Your task to perform on an android device: turn on improve location accuracy Image 0: 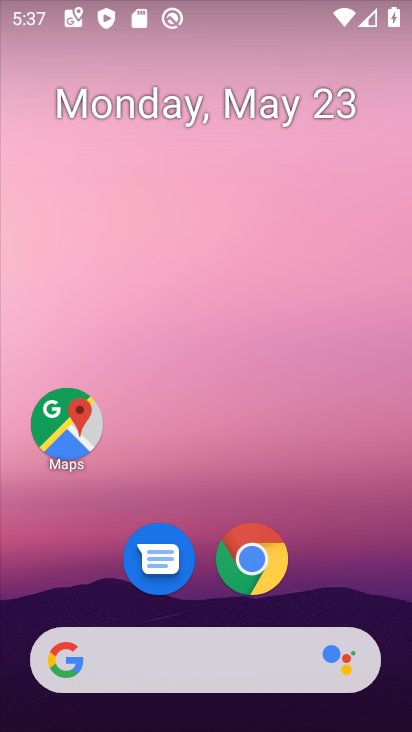
Step 0: drag from (313, 636) to (411, 177)
Your task to perform on an android device: turn on improve location accuracy Image 1: 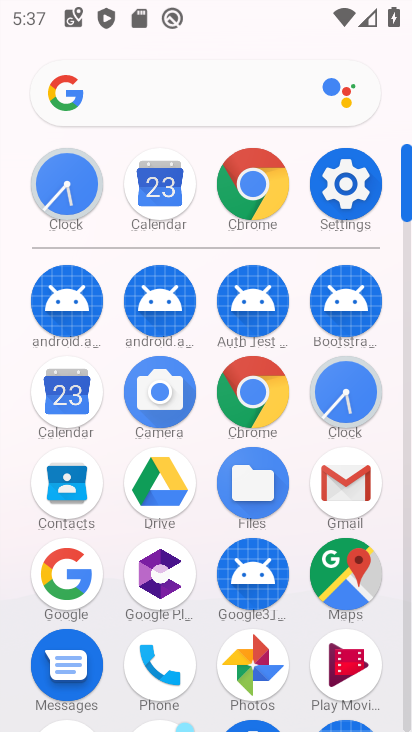
Step 1: click (376, 181)
Your task to perform on an android device: turn on improve location accuracy Image 2: 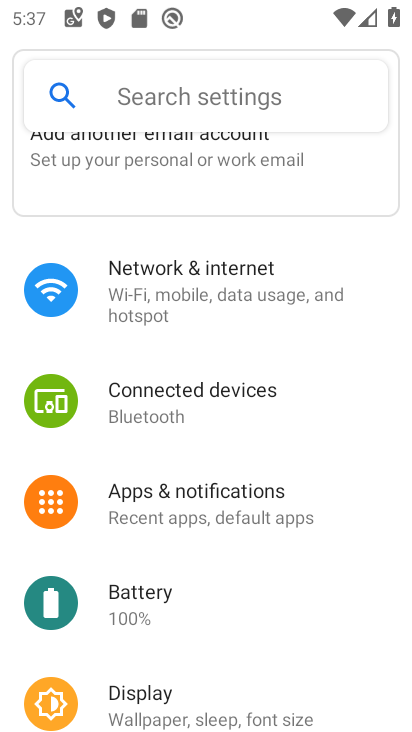
Step 2: drag from (249, 690) to (242, 115)
Your task to perform on an android device: turn on improve location accuracy Image 3: 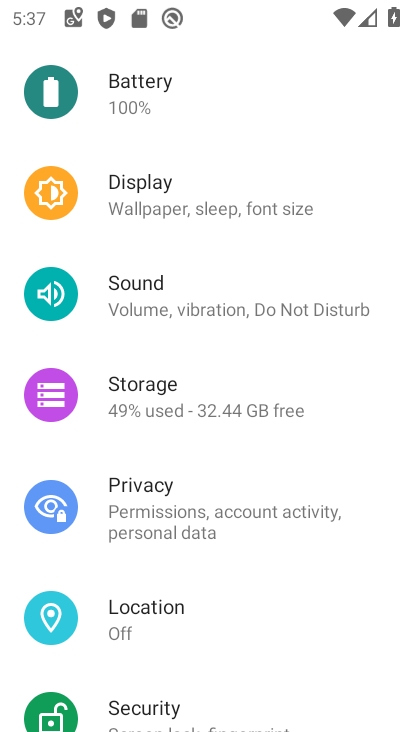
Step 3: click (191, 615)
Your task to perform on an android device: turn on improve location accuracy Image 4: 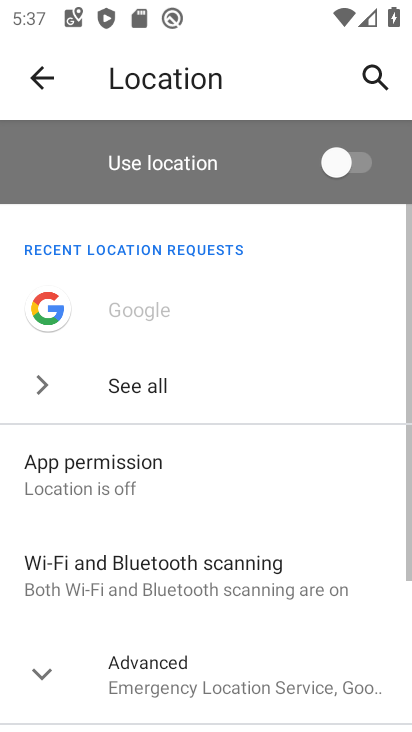
Step 4: drag from (248, 649) to (280, 164)
Your task to perform on an android device: turn on improve location accuracy Image 5: 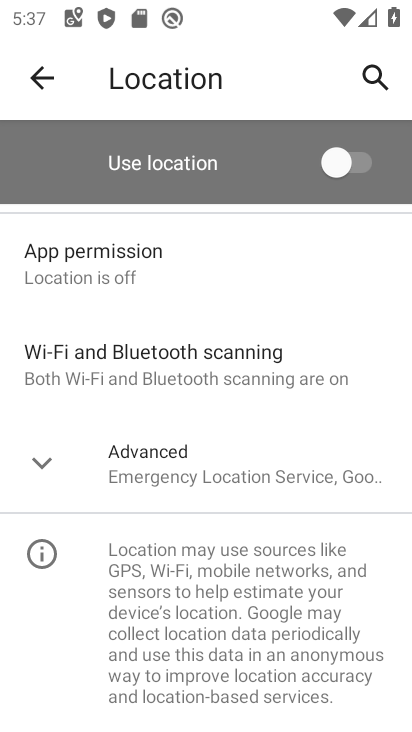
Step 5: click (233, 450)
Your task to perform on an android device: turn on improve location accuracy Image 6: 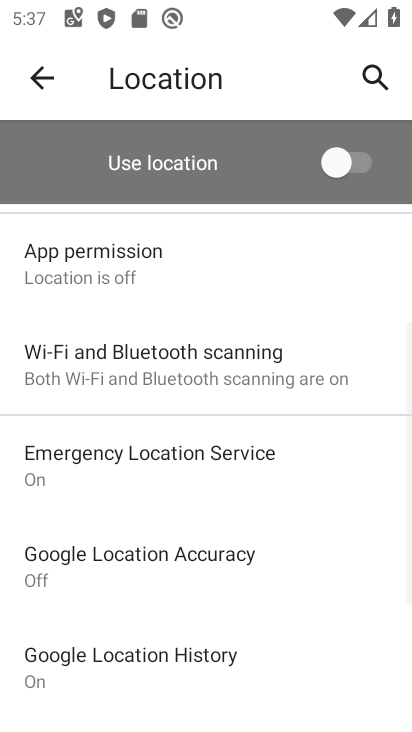
Step 6: click (226, 546)
Your task to perform on an android device: turn on improve location accuracy Image 7: 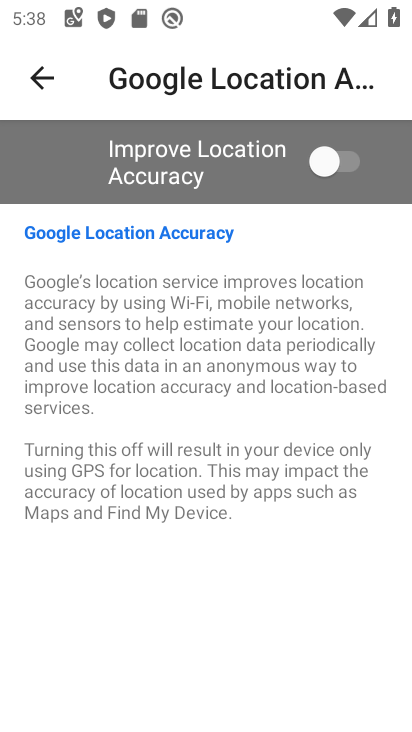
Step 7: click (348, 161)
Your task to perform on an android device: turn on improve location accuracy Image 8: 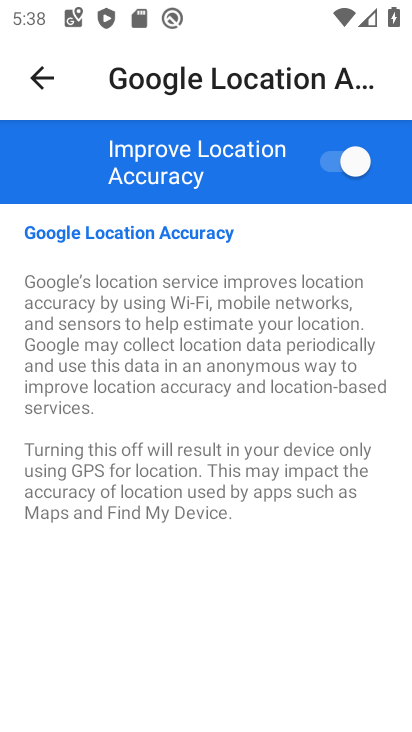
Step 8: task complete